Your task to perform on an android device: Open notification settings Image 0: 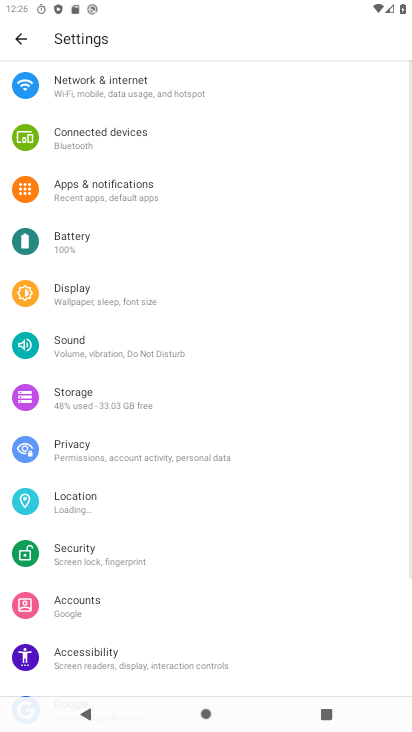
Step 0: press home button
Your task to perform on an android device: Open notification settings Image 1: 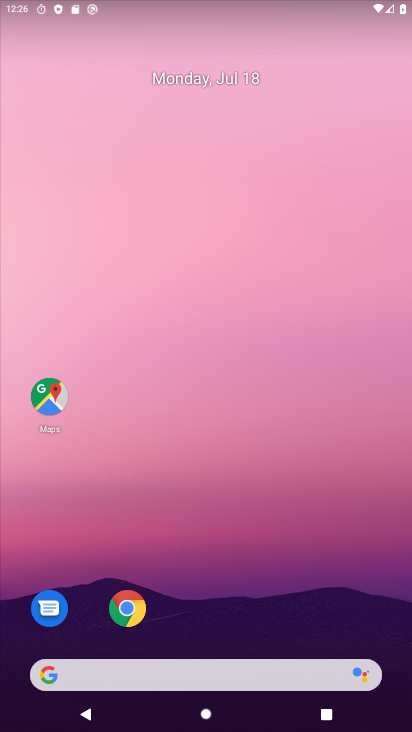
Step 1: drag from (217, 586) to (214, 81)
Your task to perform on an android device: Open notification settings Image 2: 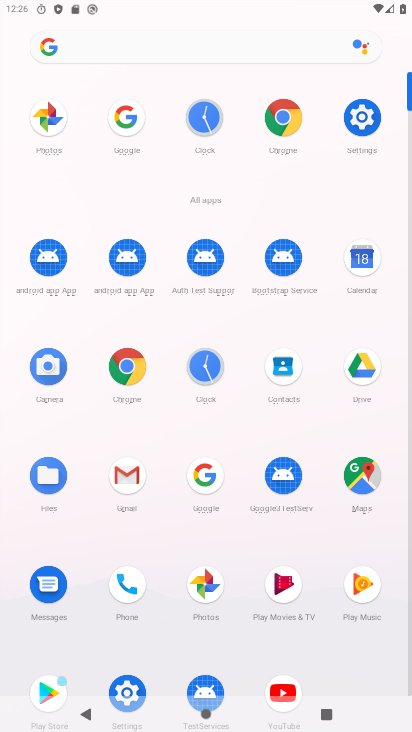
Step 2: click (367, 127)
Your task to perform on an android device: Open notification settings Image 3: 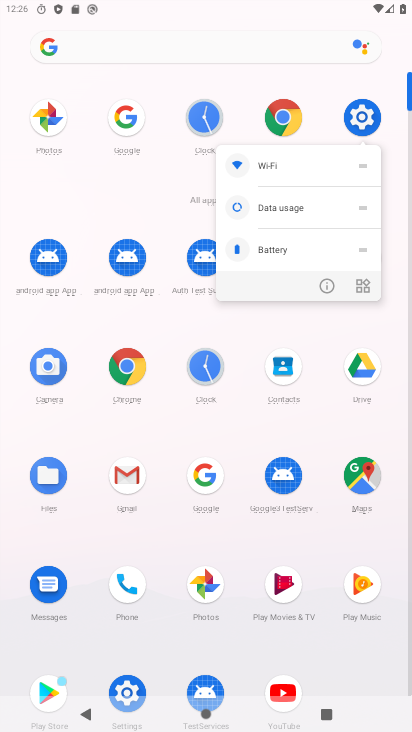
Step 3: click (367, 125)
Your task to perform on an android device: Open notification settings Image 4: 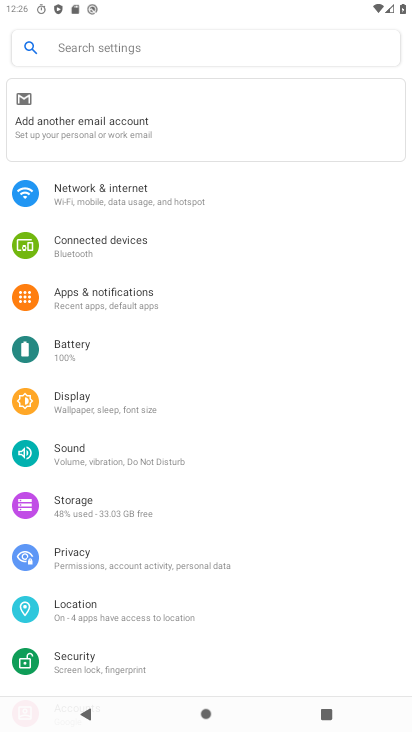
Step 4: click (122, 304)
Your task to perform on an android device: Open notification settings Image 5: 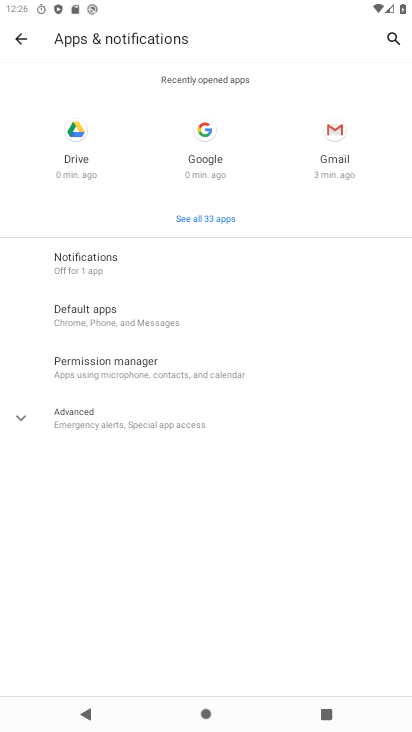
Step 5: click (64, 264)
Your task to perform on an android device: Open notification settings Image 6: 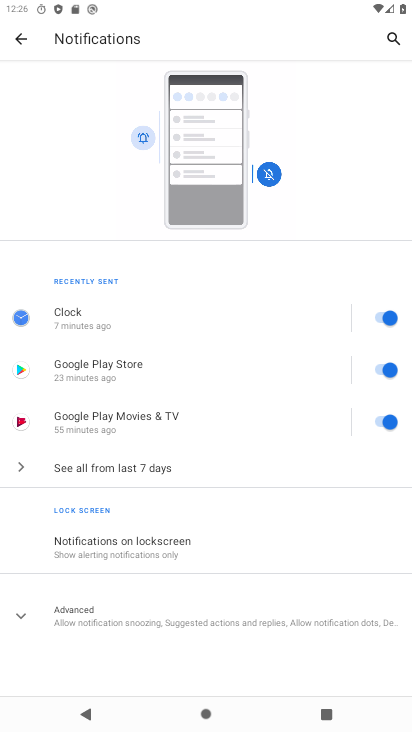
Step 6: click (90, 615)
Your task to perform on an android device: Open notification settings Image 7: 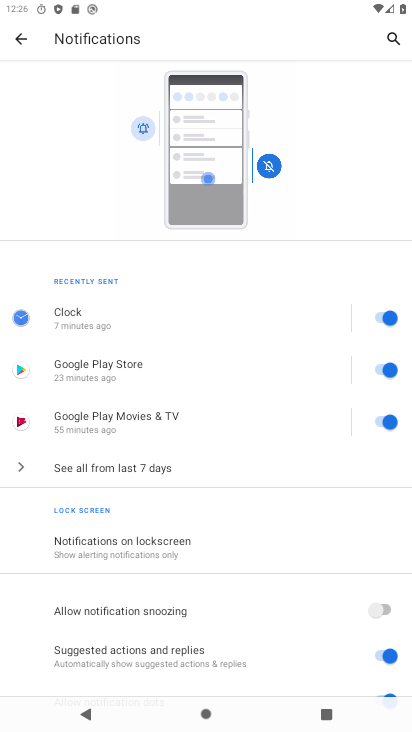
Step 7: task complete